Your task to perform on an android device: set the stopwatch Image 0: 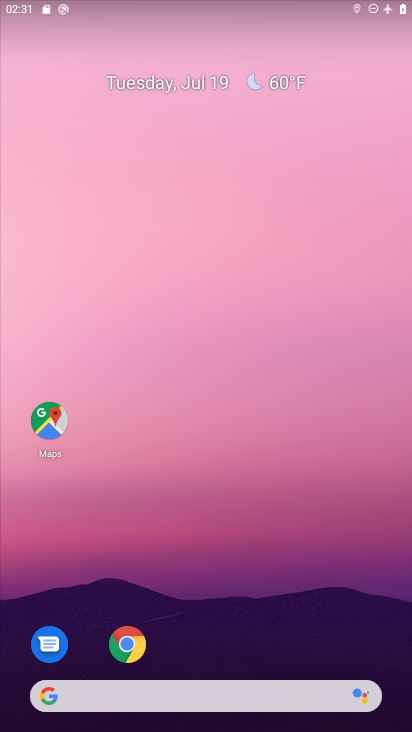
Step 0: drag from (216, 663) to (183, 94)
Your task to perform on an android device: set the stopwatch Image 1: 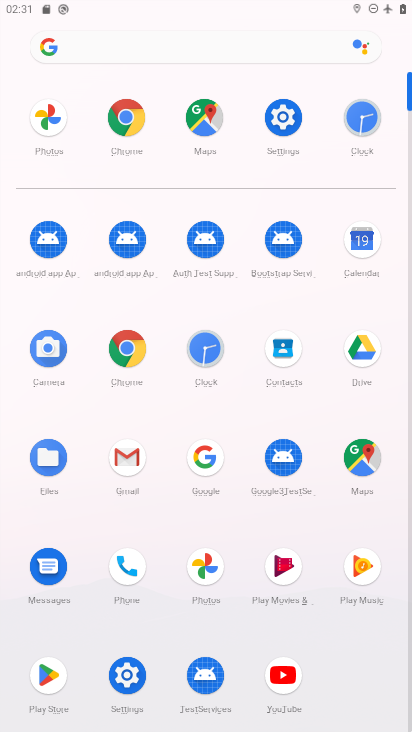
Step 1: click (199, 355)
Your task to perform on an android device: set the stopwatch Image 2: 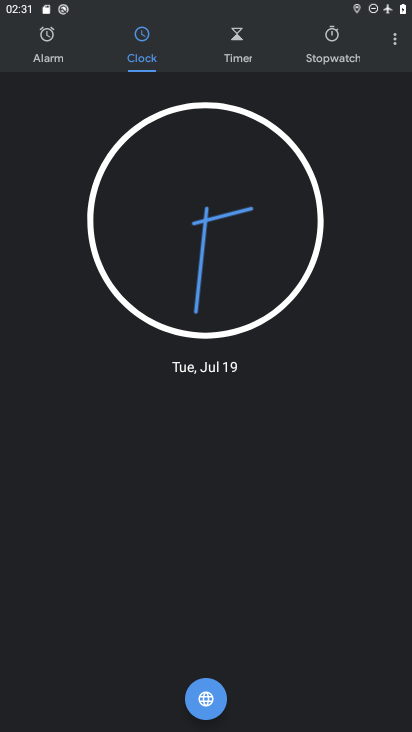
Step 2: click (321, 50)
Your task to perform on an android device: set the stopwatch Image 3: 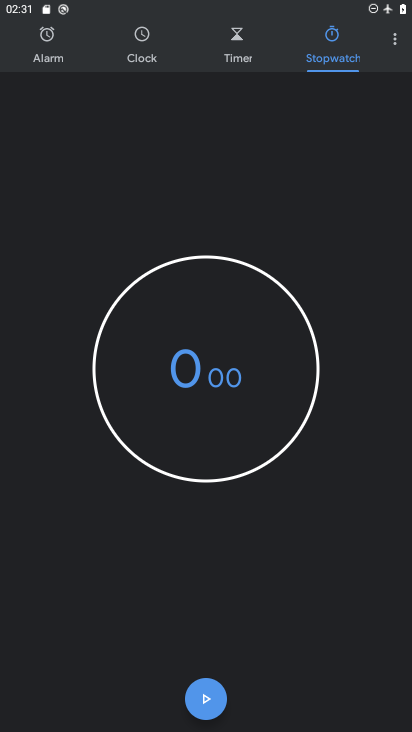
Step 3: task complete